Your task to perform on an android device: What's the weather today? Image 0: 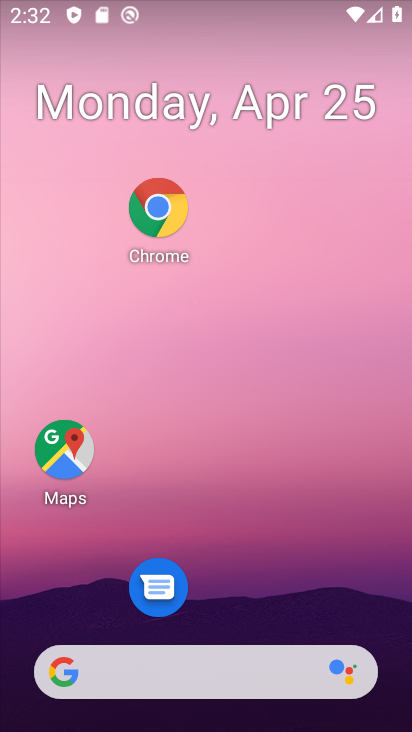
Step 0: click (167, 215)
Your task to perform on an android device: What's the weather today? Image 1: 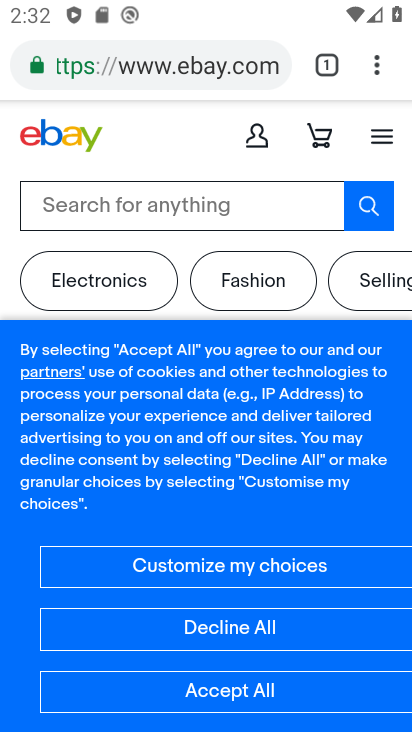
Step 1: click (119, 62)
Your task to perform on an android device: What's the weather today? Image 2: 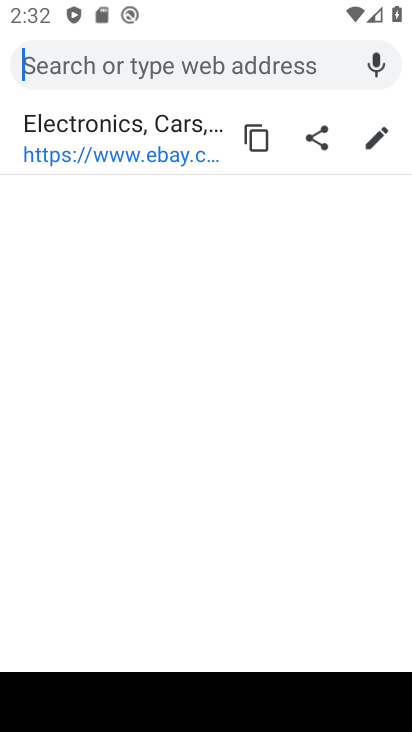
Step 2: type "What's the weather today?"
Your task to perform on an android device: What's the weather today? Image 3: 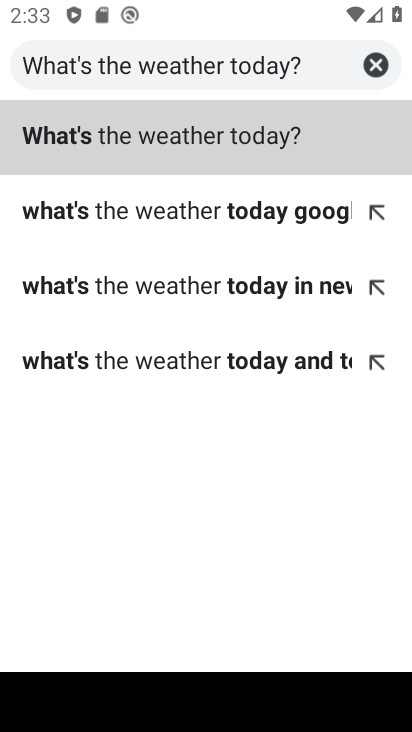
Step 3: click (150, 151)
Your task to perform on an android device: What's the weather today? Image 4: 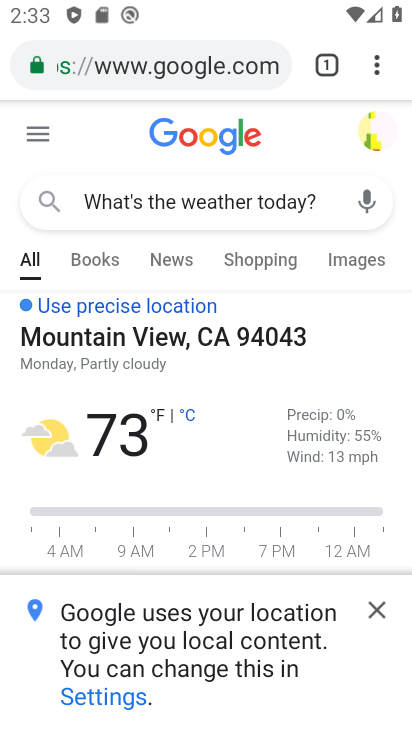
Step 4: task complete